Your task to perform on an android device: Go to wifi settings Image 0: 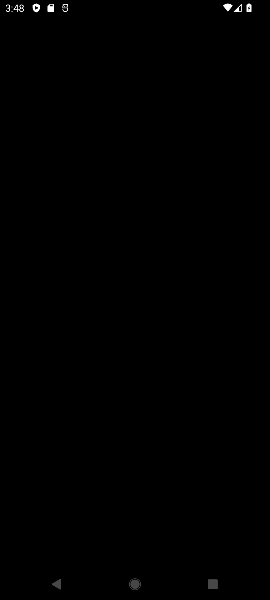
Step 0: press back button
Your task to perform on an android device: Go to wifi settings Image 1: 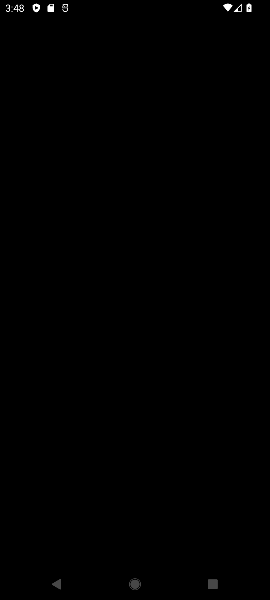
Step 1: press home button
Your task to perform on an android device: Go to wifi settings Image 2: 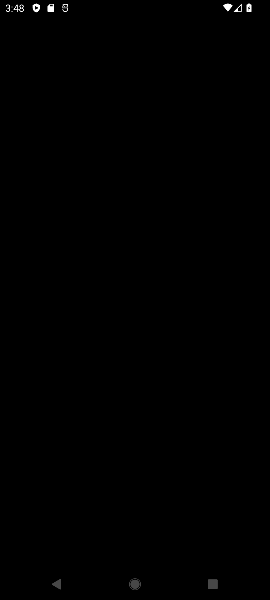
Step 2: drag from (222, 5) to (177, 319)
Your task to perform on an android device: Go to wifi settings Image 3: 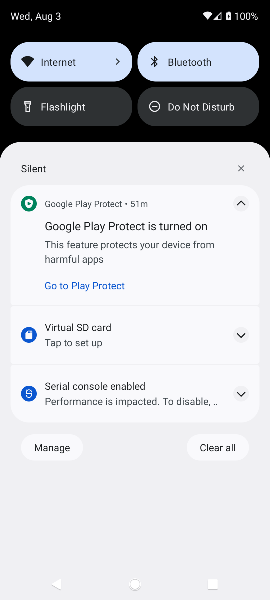
Step 3: press back button
Your task to perform on an android device: Go to wifi settings Image 4: 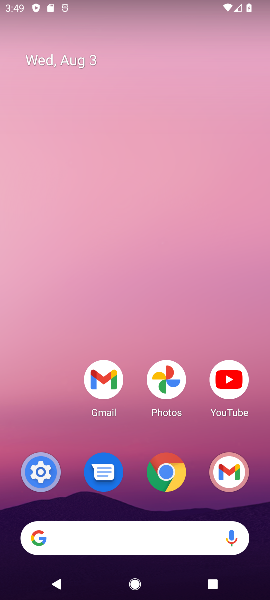
Step 4: drag from (72, 9) to (65, 420)
Your task to perform on an android device: Go to wifi settings Image 5: 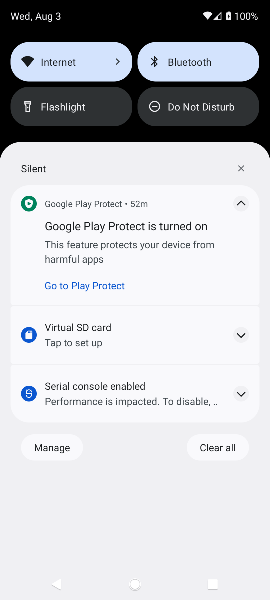
Step 5: press back button
Your task to perform on an android device: Go to wifi settings Image 6: 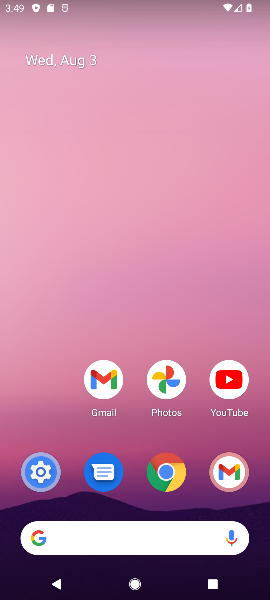
Step 6: drag from (55, 3) to (68, 368)
Your task to perform on an android device: Go to wifi settings Image 7: 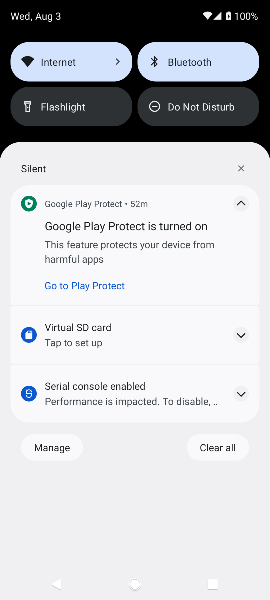
Step 7: drag from (147, 145) to (121, 578)
Your task to perform on an android device: Go to wifi settings Image 8: 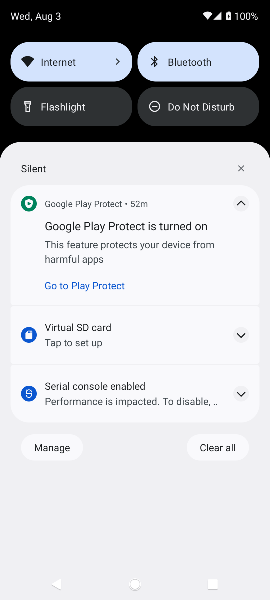
Step 8: drag from (145, 131) to (141, 599)
Your task to perform on an android device: Go to wifi settings Image 9: 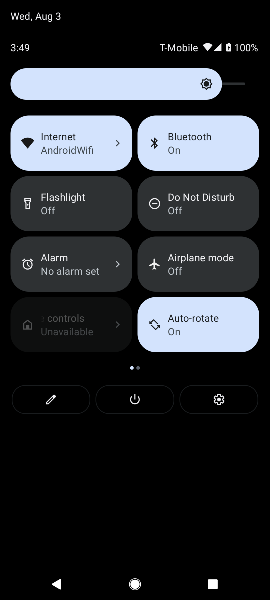
Step 9: click (71, 147)
Your task to perform on an android device: Go to wifi settings Image 10: 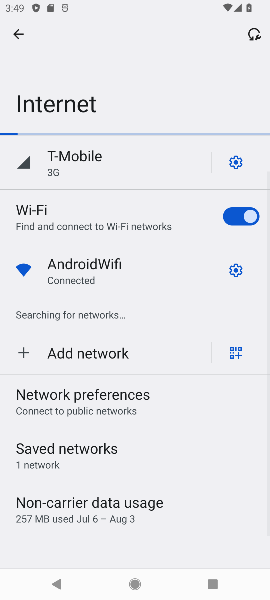
Step 10: task complete